Your task to perform on an android device: turn on showing notifications on the lock screen Image 0: 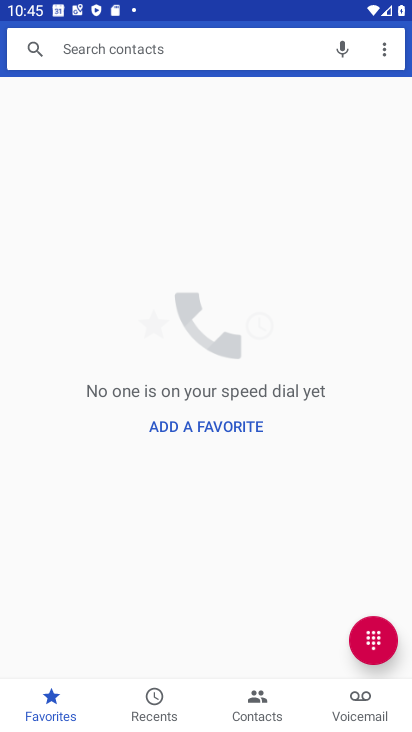
Step 0: press home button
Your task to perform on an android device: turn on showing notifications on the lock screen Image 1: 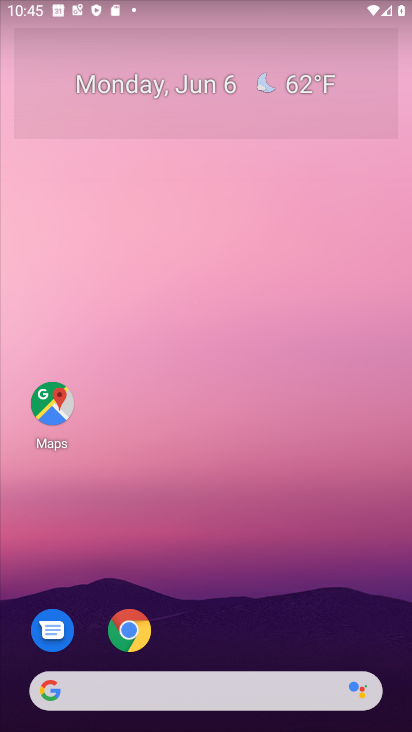
Step 1: drag from (377, 606) to (369, 188)
Your task to perform on an android device: turn on showing notifications on the lock screen Image 2: 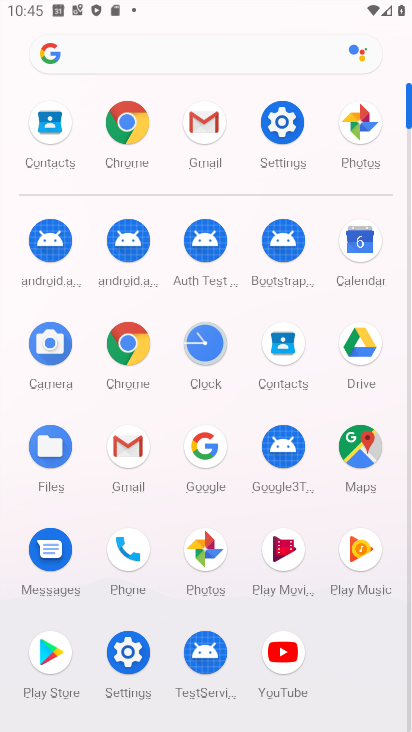
Step 2: click (134, 648)
Your task to perform on an android device: turn on showing notifications on the lock screen Image 3: 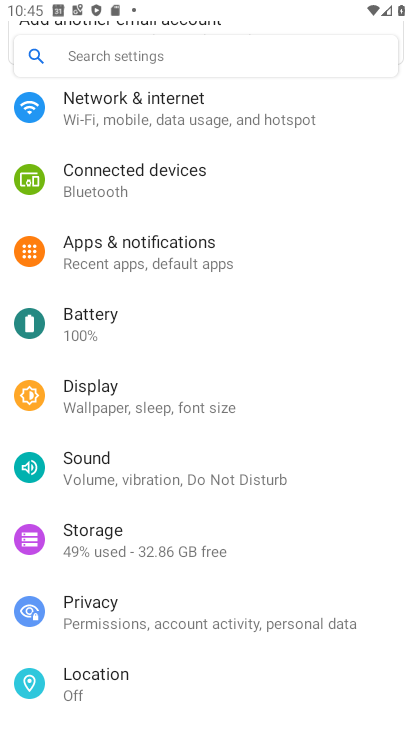
Step 3: click (194, 249)
Your task to perform on an android device: turn on showing notifications on the lock screen Image 4: 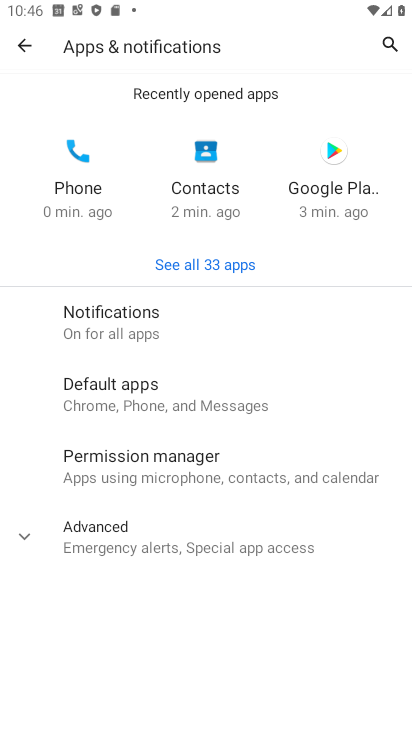
Step 4: click (172, 306)
Your task to perform on an android device: turn on showing notifications on the lock screen Image 5: 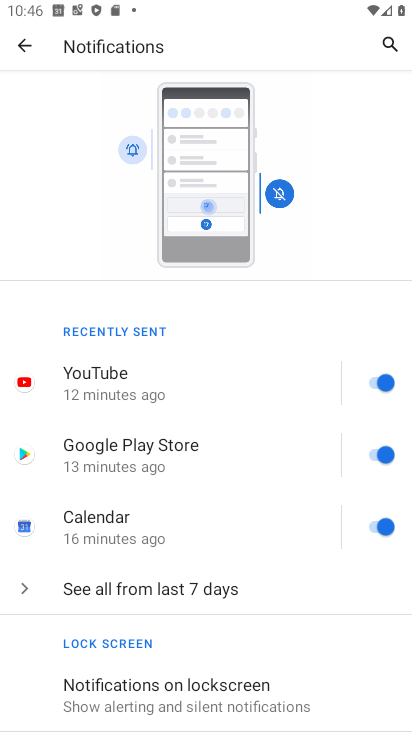
Step 5: drag from (219, 633) to (252, 384)
Your task to perform on an android device: turn on showing notifications on the lock screen Image 6: 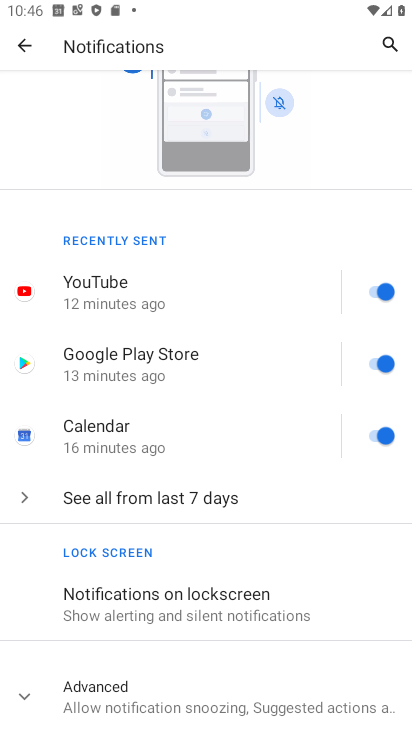
Step 6: click (226, 615)
Your task to perform on an android device: turn on showing notifications on the lock screen Image 7: 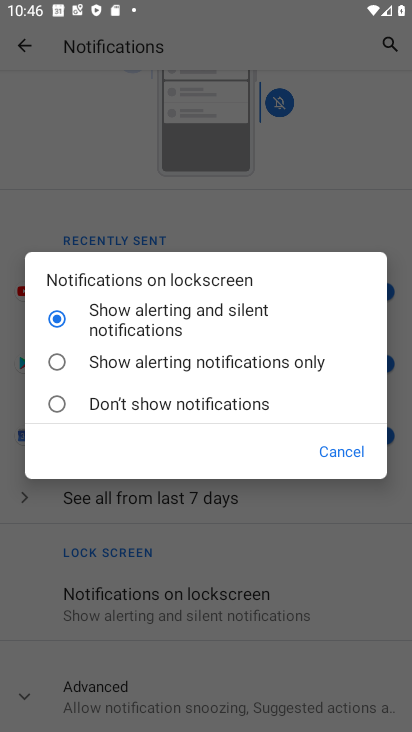
Step 7: task complete